Your task to perform on an android device: Open wifi settings Image 0: 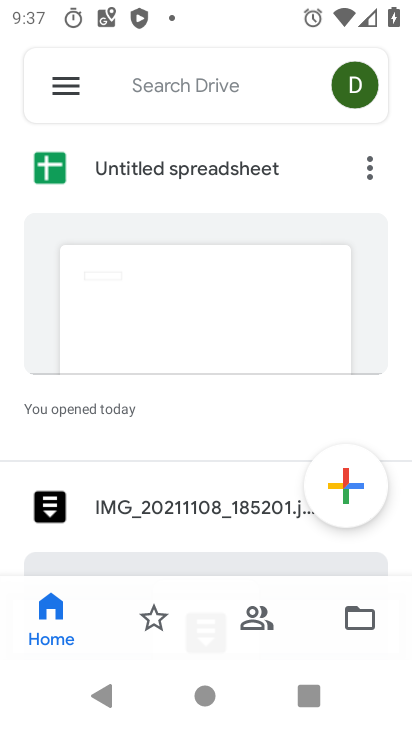
Step 0: press home button
Your task to perform on an android device: Open wifi settings Image 1: 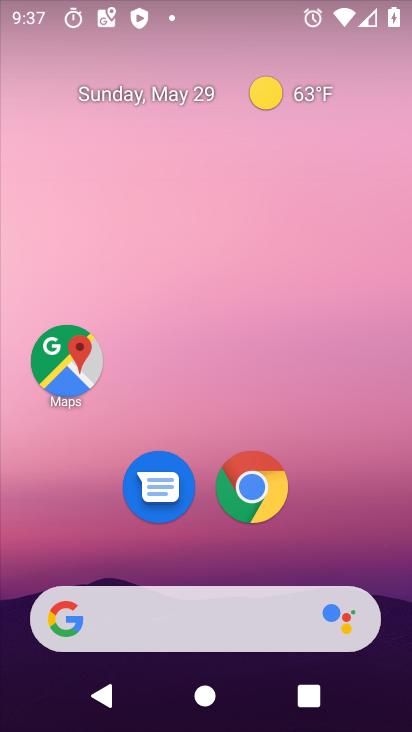
Step 1: drag from (223, 592) to (170, 190)
Your task to perform on an android device: Open wifi settings Image 2: 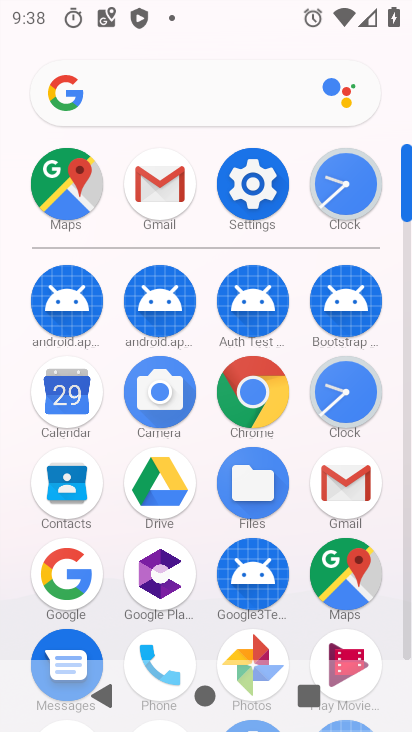
Step 2: click (251, 209)
Your task to perform on an android device: Open wifi settings Image 3: 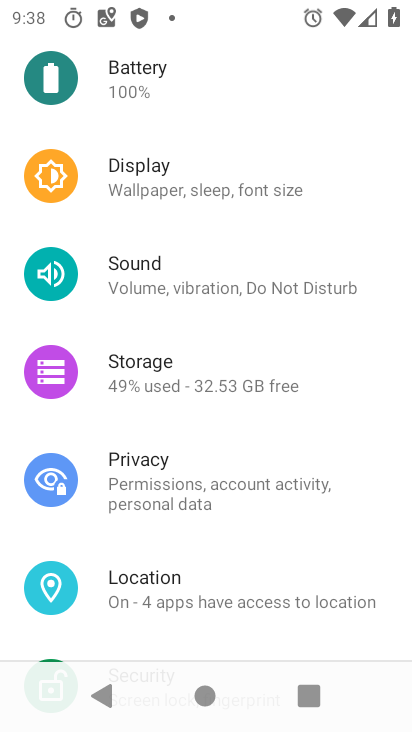
Step 3: drag from (177, 276) to (152, 594)
Your task to perform on an android device: Open wifi settings Image 4: 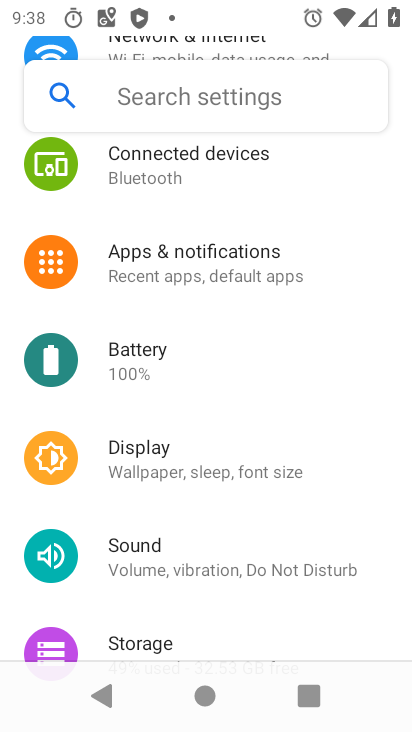
Step 4: drag from (137, 268) to (151, 566)
Your task to perform on an android device: Open wifi settings Image 5: 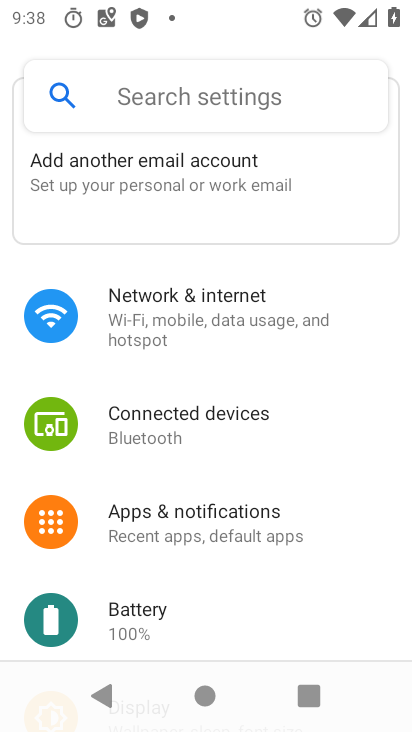
Step 5: click (177, 318)
Your task to perform on an android device: Open wifi settings Image 6: 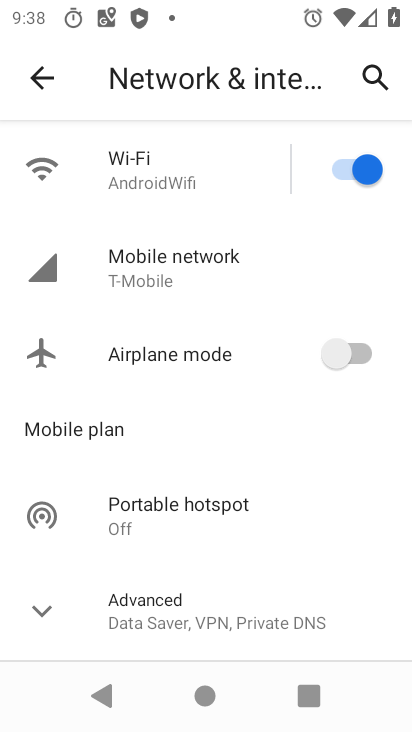
Step 6: click (203, 276)
Your task to perform on an android device: Open wifi settings Image 7: 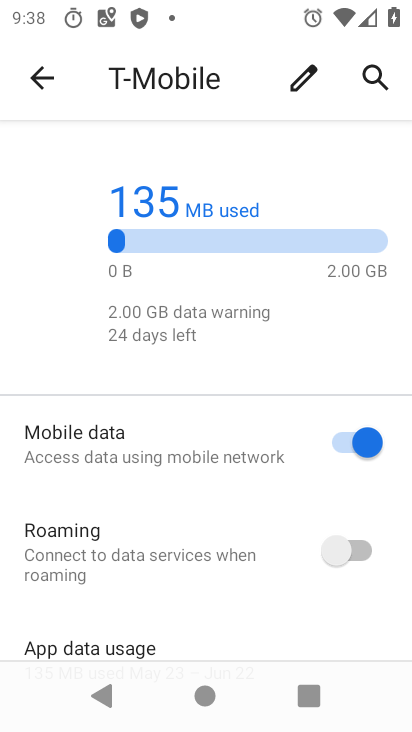
Step 7: task complete